Your task to perform on an android device: change keyboard looks Image 0: 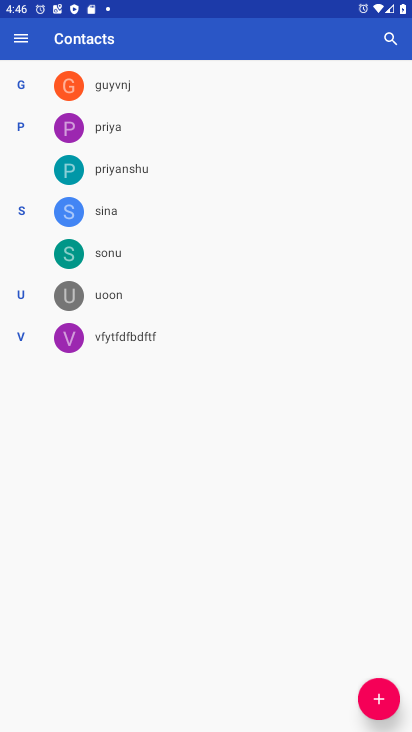
Step 0: press home button
Your task to perform on an android device: change keyboard looks Image 1: 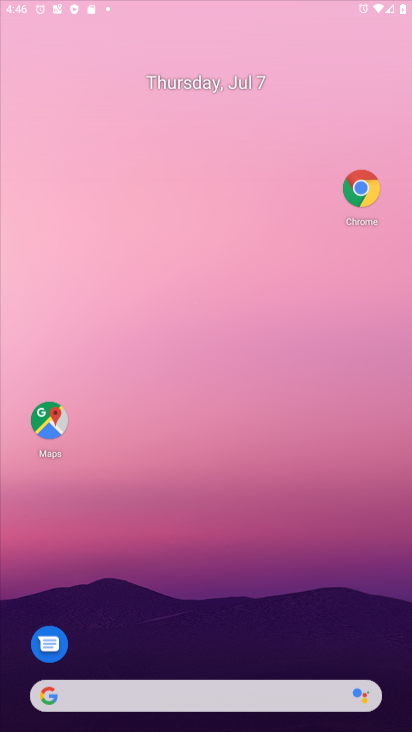
Step 1: drag from (233, 684) to (273, 166)
Your task to perform on an android device: change keyboard looks Image 2: 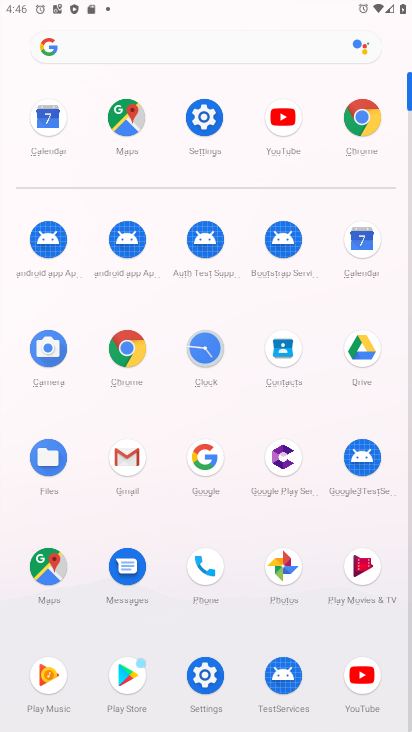
Step 2: click (197, 130)
Your task to perform on an android device: change keyboard looks Image 3: 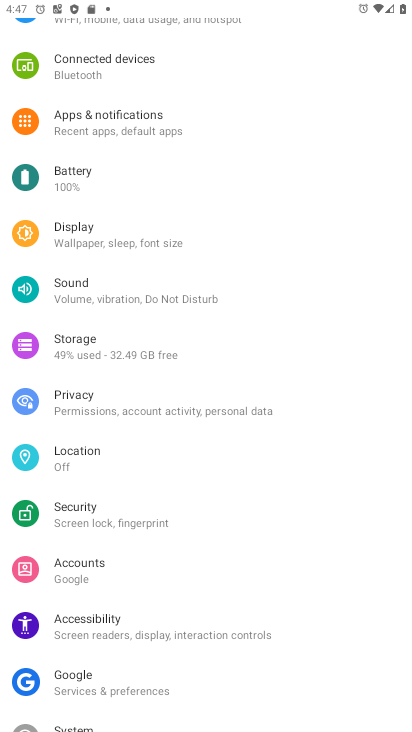
Step 3: drag from (173, 592) to (195, 180)
Your task to perform on an android device: change keyboard looks Image 4: 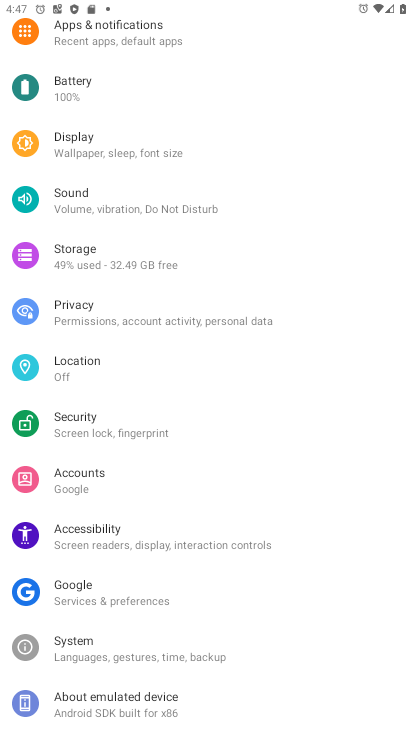
Step 4: click (160, 704)
Your task to perform on an android device: change keyboard looks Image 5: 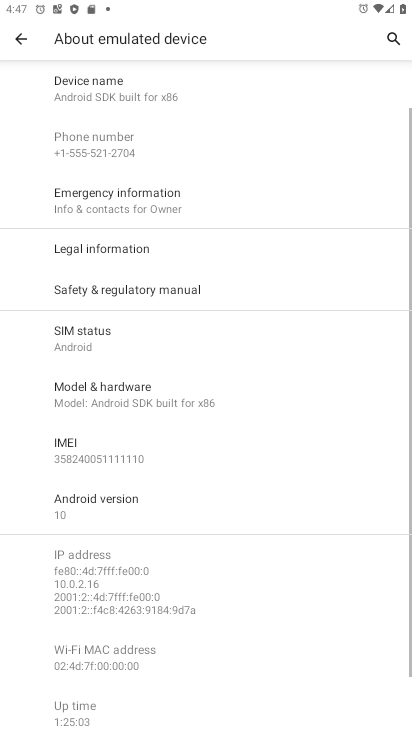
Step 5: click (18, 45)
Your task to perform on an android device: change keyboard looks Image 6: 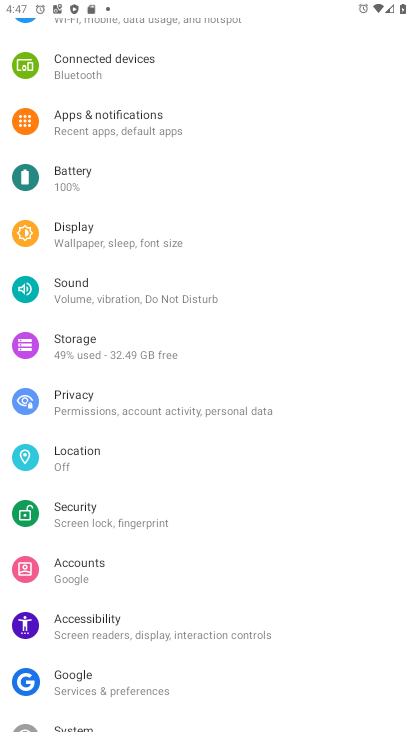
Step 6: drag from (191, 526) to (164, 287)
Your task to perform on an android device: change keyboard looks Image 7: 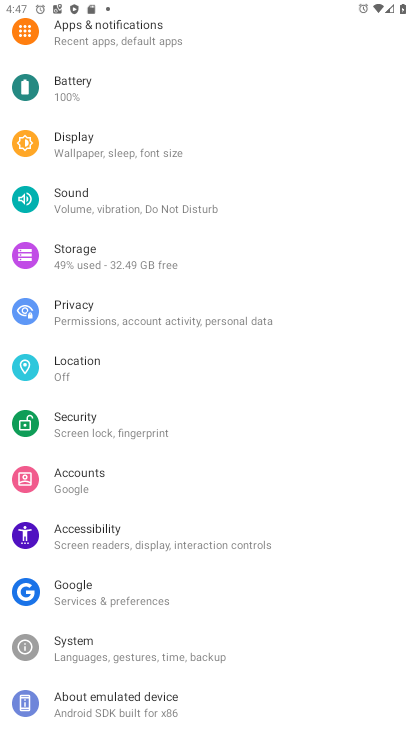
Step 7: click (81, 657)
Your task to perform on an android device: change keyboard looks Image 8: 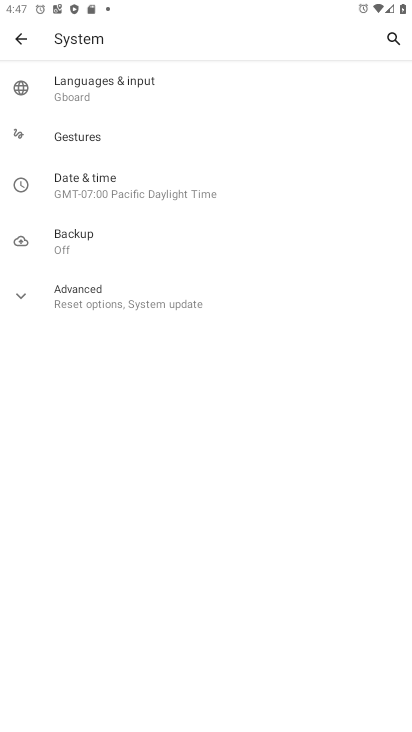
Step 8: click (184, 92)
Your task to perform on an android device: change keyboard looks Image 9: 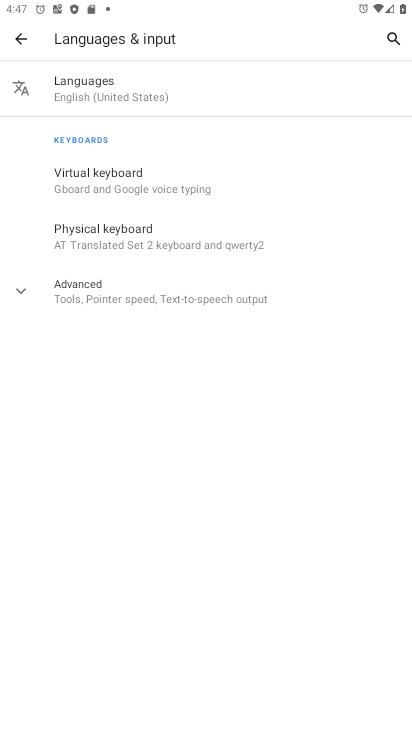
Step 9: click (152, 187)
Your task to perform on an android device: change keyboard looks Image 10: 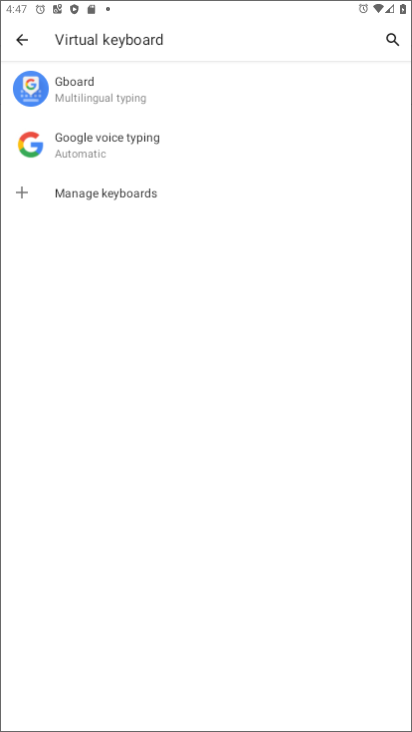
Step 10: click (167, 87)
Your task to perform on an android device: change keyboard looks Image 11: 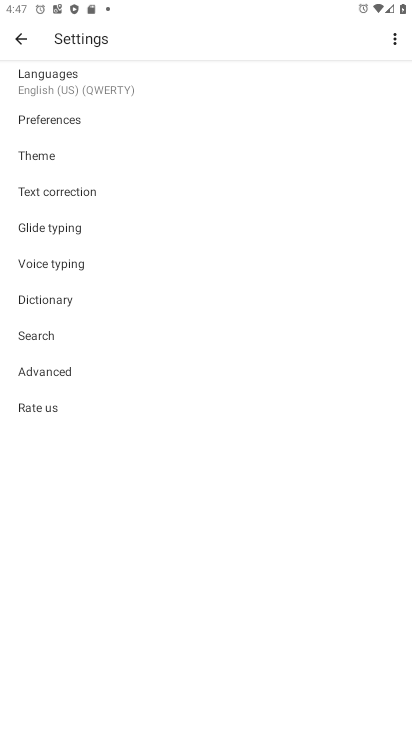
Step 11: click (83, 162)
Your task to perform on an android device: change keyboard looks Image 12: 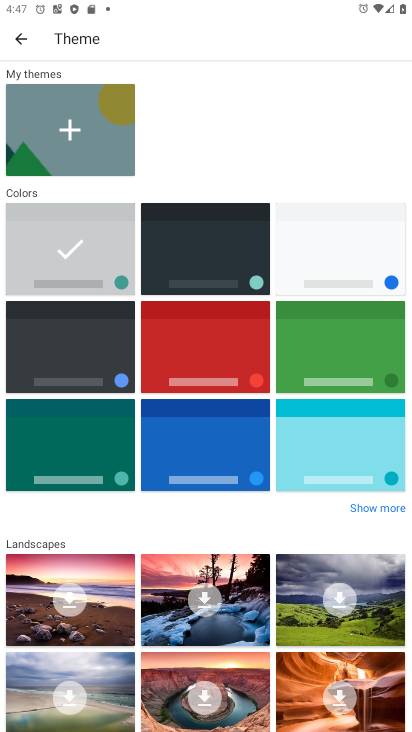
Step 12: click (189, 416)
Your task to perform on an android device: change keyboard looks Image 13: 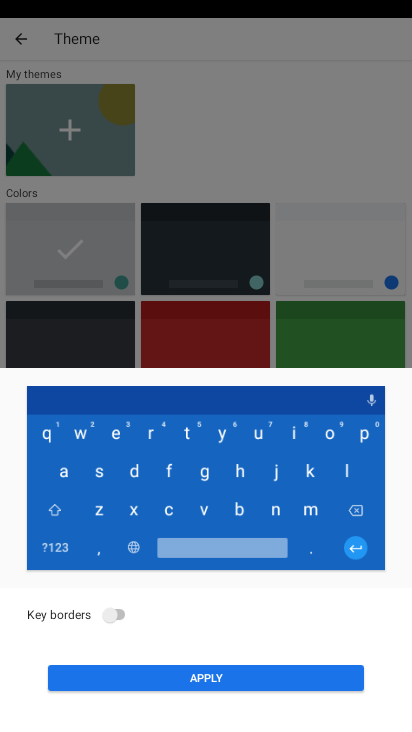
Step 13: click (179, 675)
Your task to perform on an android device: change keyboard looks Image 14: 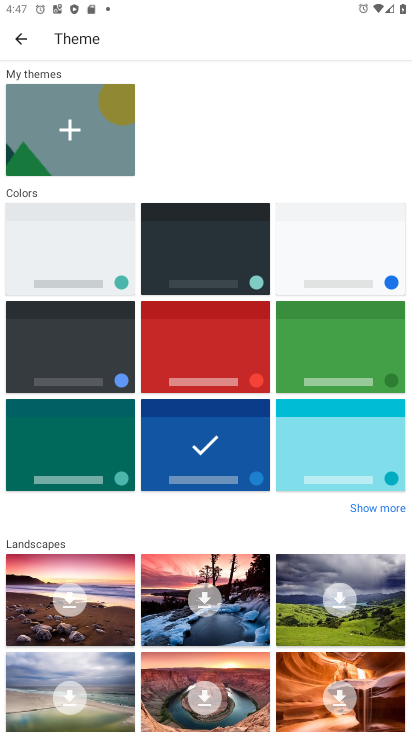
Step 14: task complete